Your task to perform on an android device: remove spam from my inbox in the gmail app Image 0: 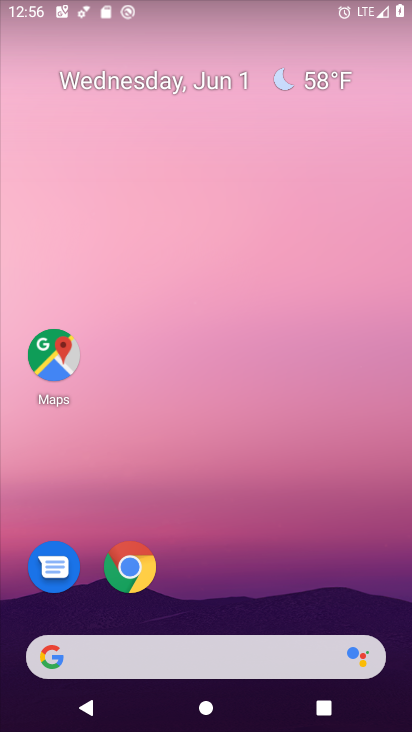
Step 0: drag from (222, 583) to (194, 108)
Your task to perform on an android device: remove spam from my inbox in the gmail app Image 1: 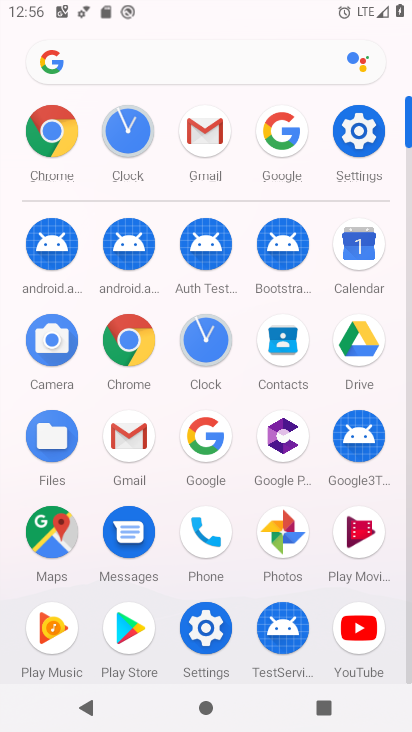
Step 1: click (209, 133)
Your task to perform on an android device: remove spam from my inbox in the gmail app Image 2: 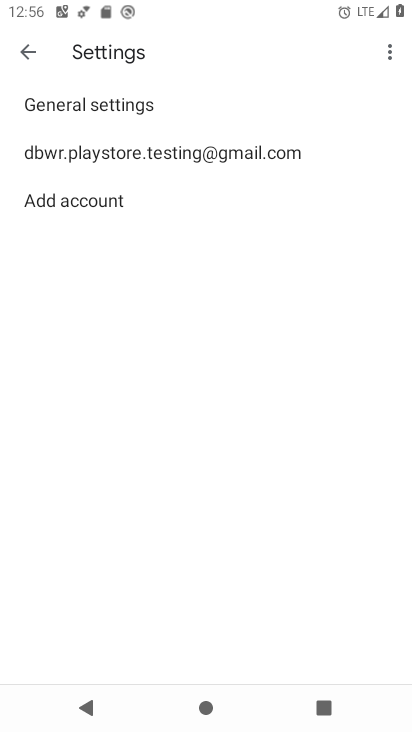
Step 2: press back button
Your task to perform on an android device: remove spam from my inbox in the gmail app Image 3: 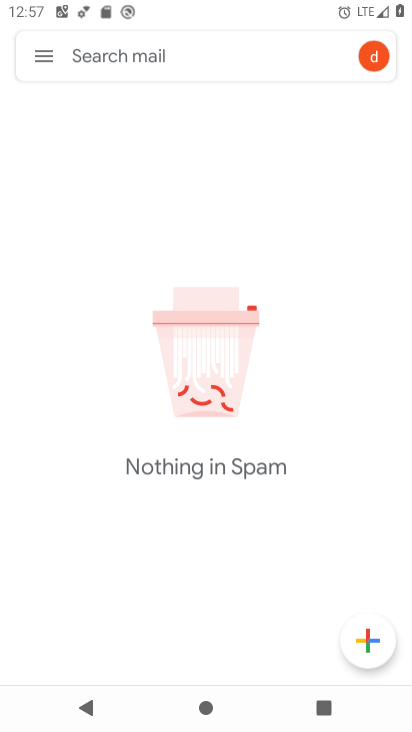
Step 3: press back button
Your task to perform on an android device: remove spam from my inbox in the gmail app Image 4: 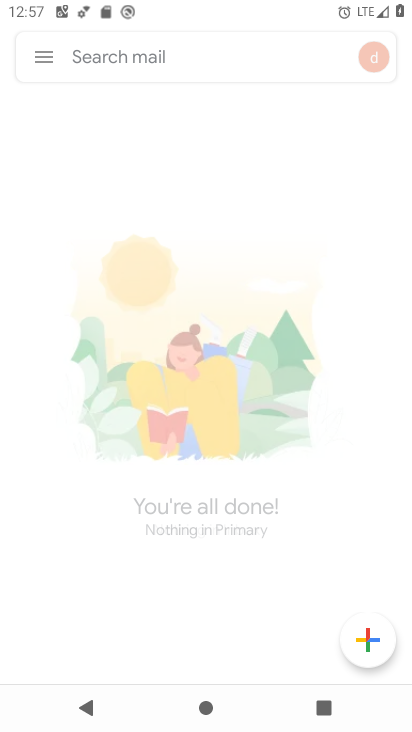
Step 4: click (56, 56)
Your task to perform on an android device: remove spam from my inbox in the gmail app Image 5: 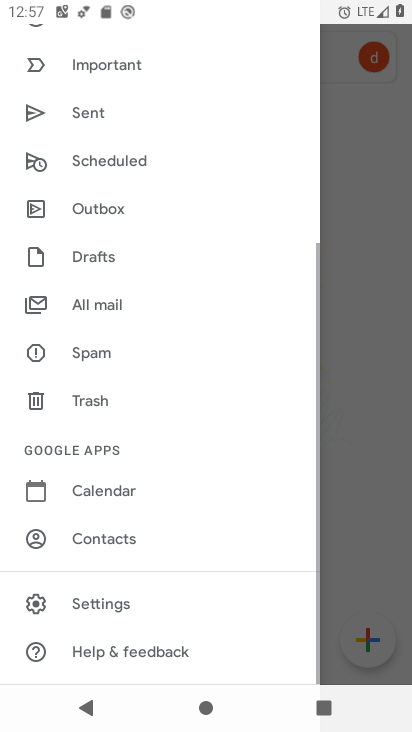
Step 5: task complete